Your task to perform on an android device: turn on javascript in the chrome app Image 0: 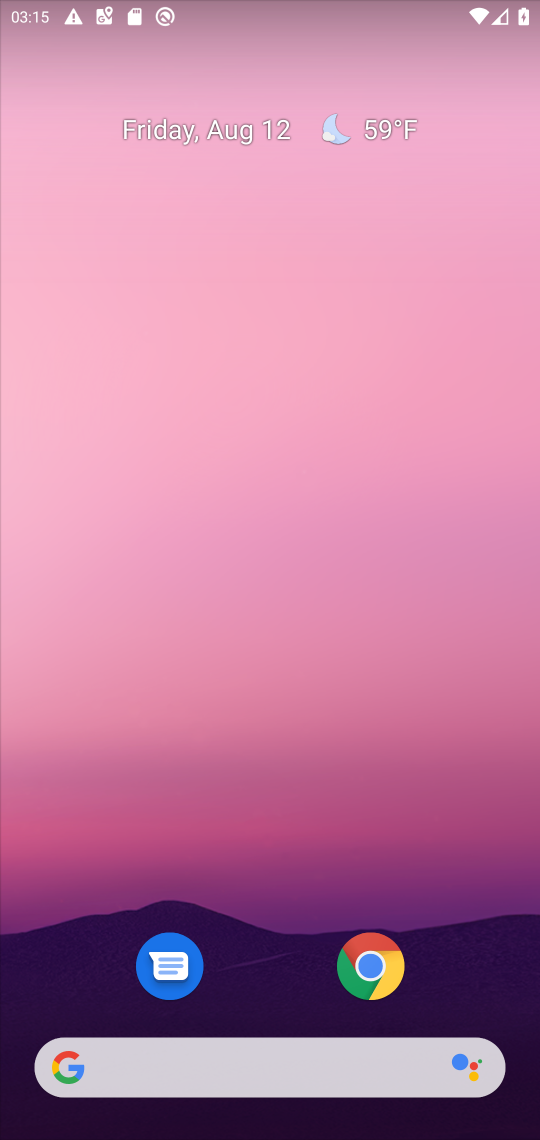
Step 0: drag from (248, 779) to (304, 12)
Your task to perform on an android device: turn on javascript in the chrome app Image 1: 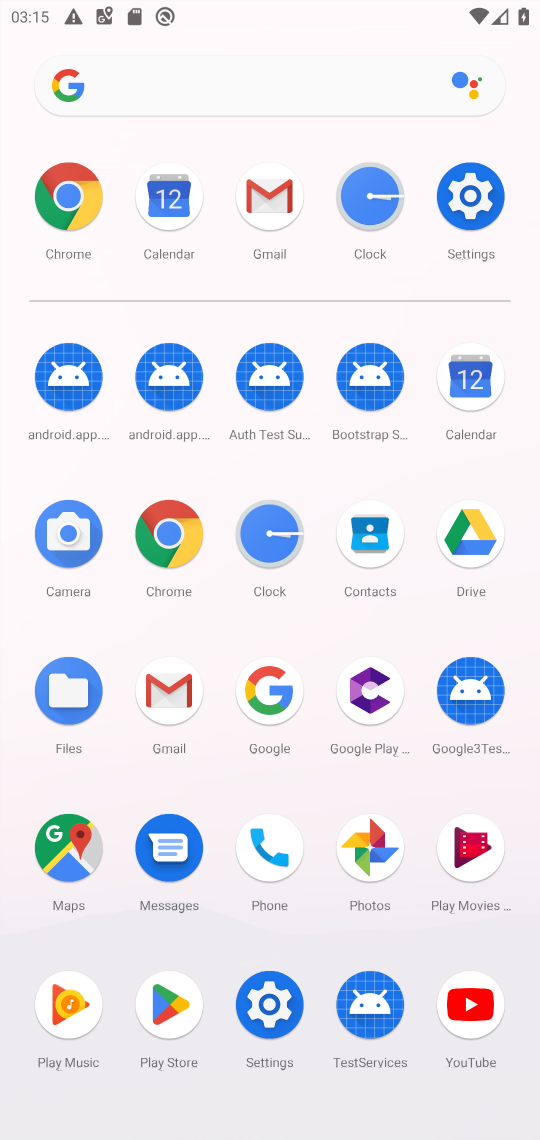
Step 1: click (167, 547)
Your task to perform on an android device: turn on javascript in the chrome app Image 2: 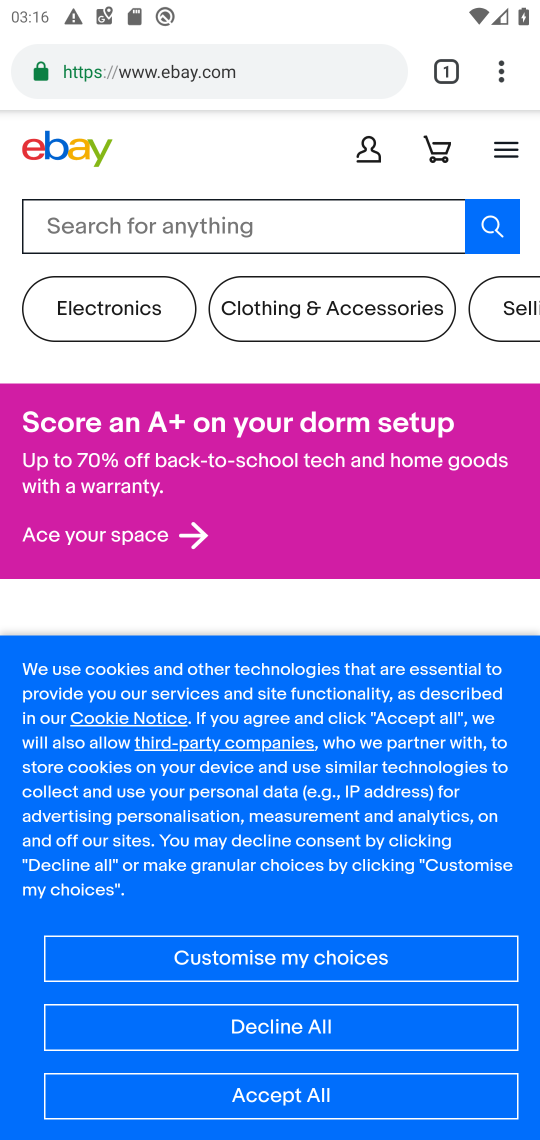
Step 2: drag from (507, 66) to (246, 870)
Your task to perform on an android device: turn on javascript in the chrome app Image 3: 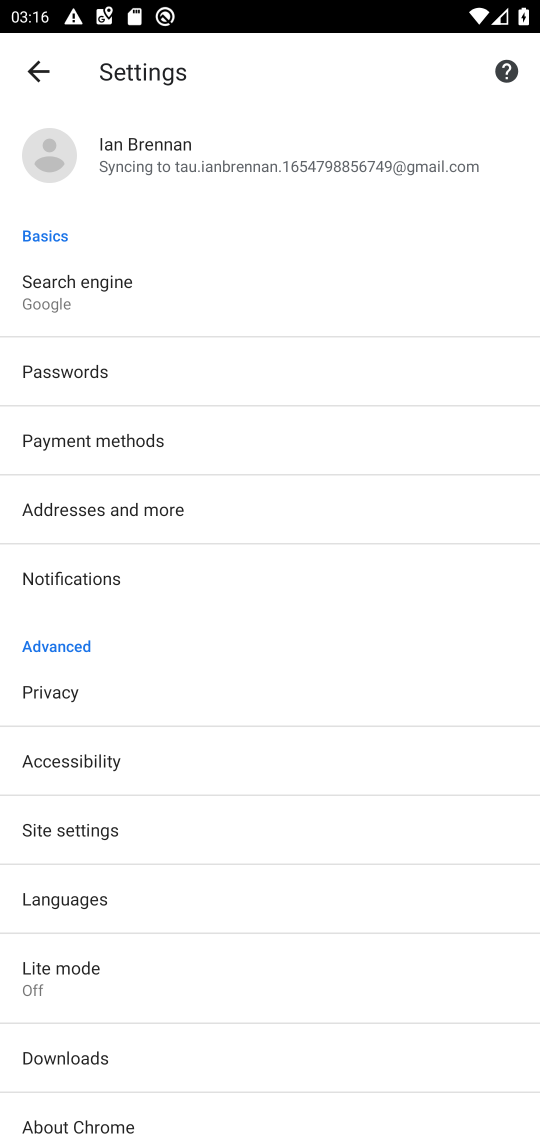
Step 3: click (116, 836)
Your task to perform on an android device: turn on javascript in the chrome app Image 4: 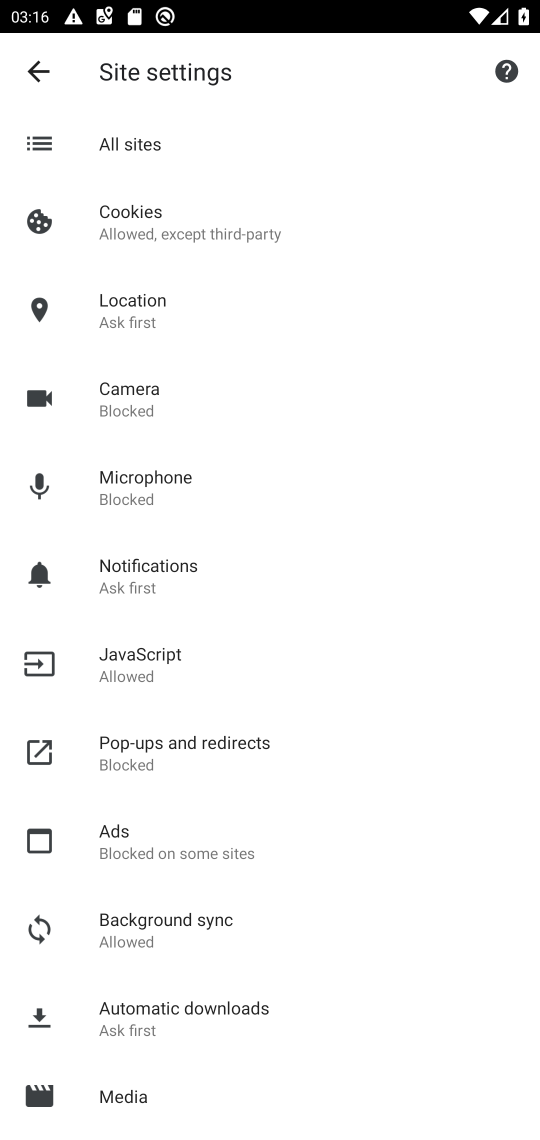
Step 4: click (132, 660)
Your task to perform on an android device: turn on javascript in the chrome app Image 5: 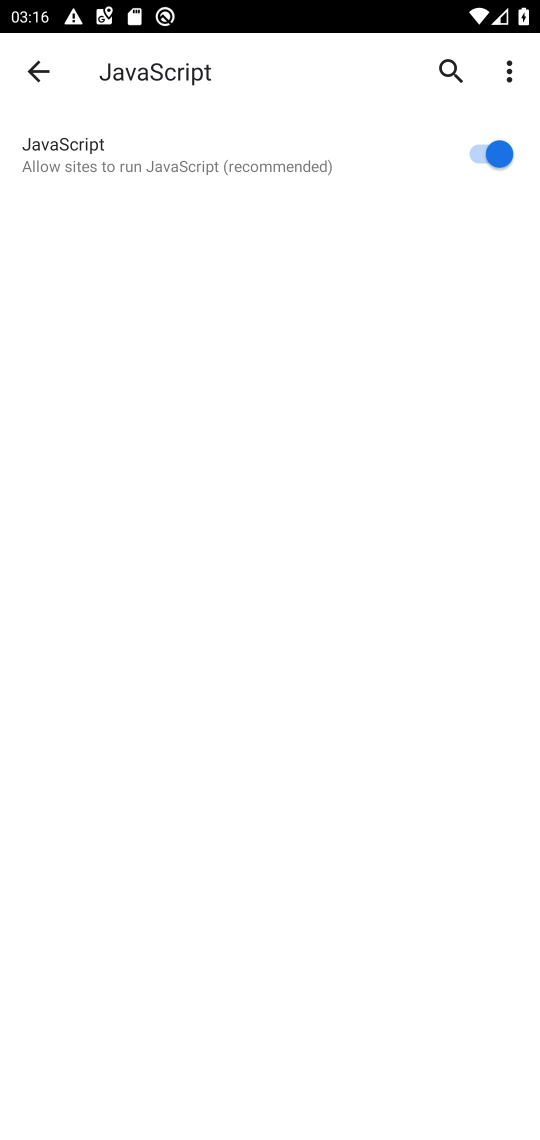
Step 5: task complete